Your task to perform on an android device: Open calendar and show me the third week of next month Image 0: 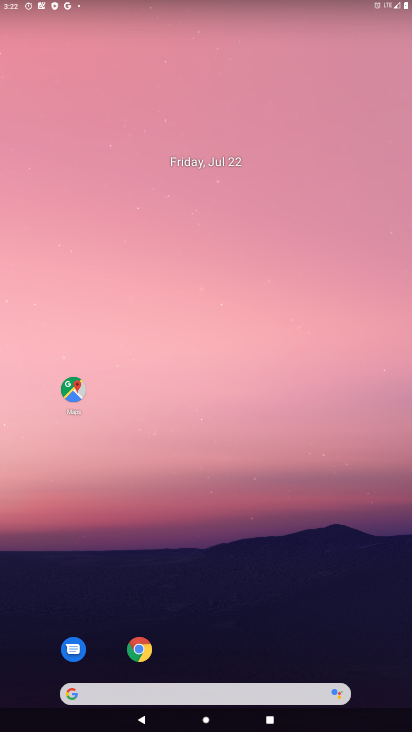
Step 0: drag from (302, 528) to (290, 40)
Your task to perform on an android device: Open calendar and show me the third week of next month Image 1: 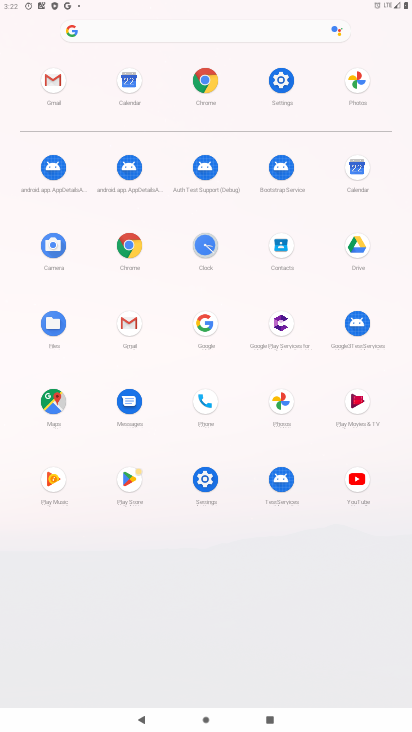
Step 1: click (205, 81)
Your task to perform on an android device: Open calendar and show me the third week of next month Image 2: 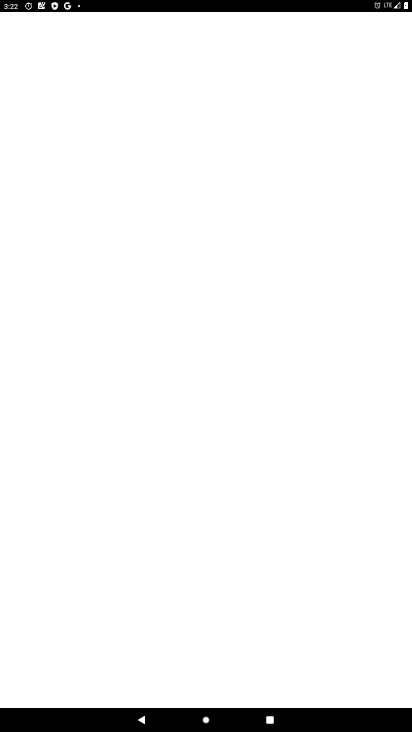
Step 2: press home button
Your task to perform on an android device: Open calendar and show me the third week of next month Image 3: 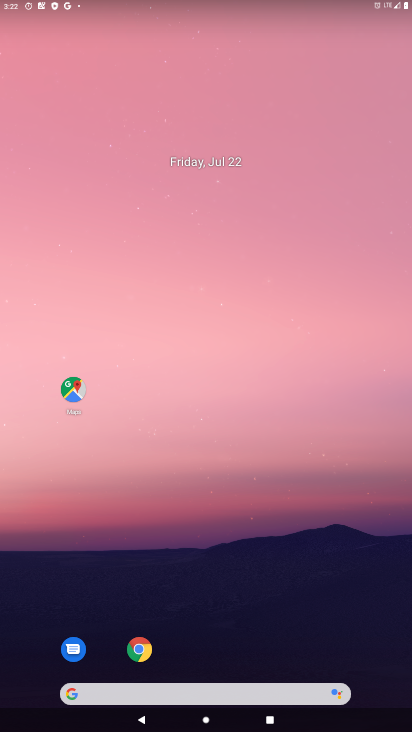
Step 3: drag from (325, 633) to (315, 25)
Your task to perform on an android device: Open calendar and show me the third week of next month Image 4: 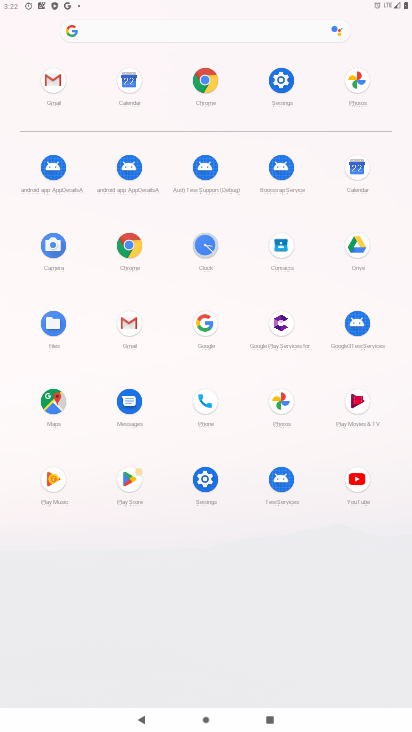
Step 4: click (360, 170)
Your task to perform on an android device: Open calendar and show me the third week of next month Image 5: 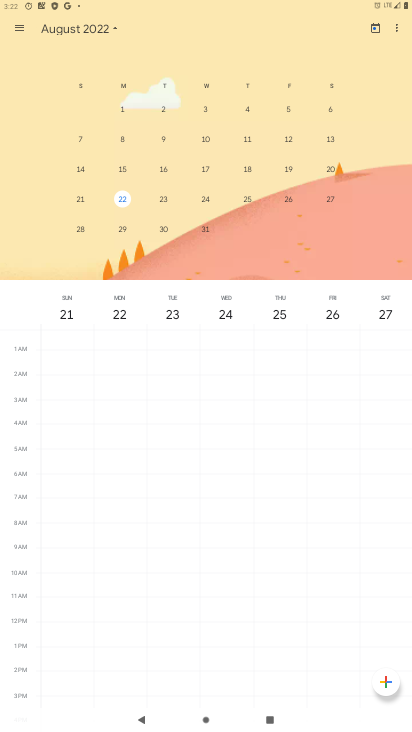
Step 5: click (204, 161)
Your task to perform on an android device: Open calendar and show me the third week of next month Image 6: 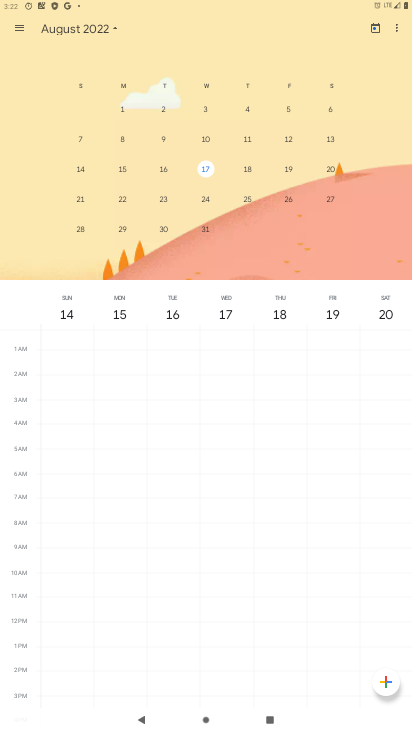
Step 6: task complete